Your task to perform on an android device: open device folders in google photos Image 0: 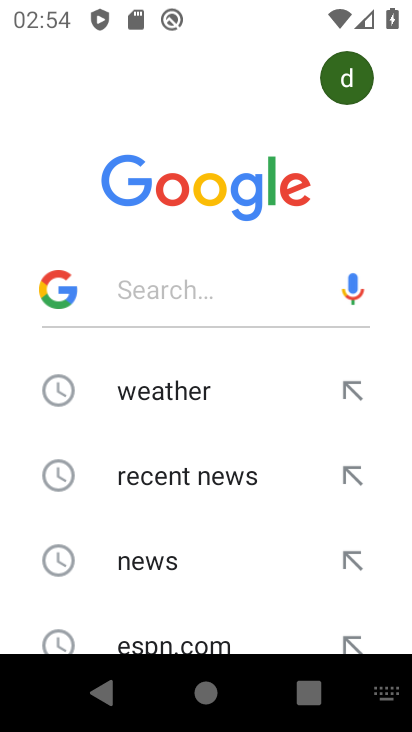
Step 0: press home button
Your task to perform on an android device: open device folders in google photos Image 1: 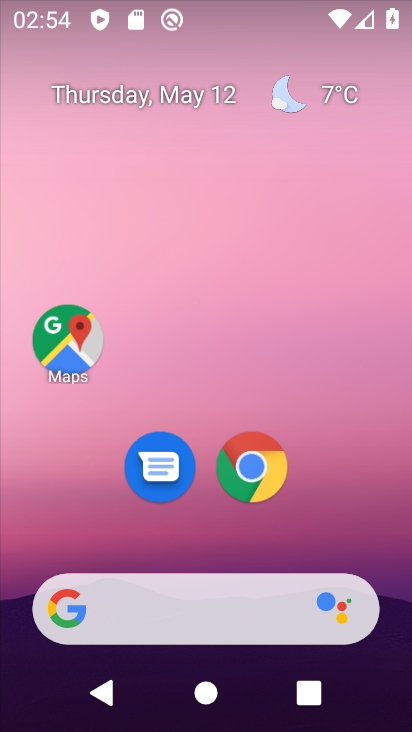
Step 1: drag from (335, 531) to (332, 63)
Your task to perform on an android device: open device folders in google photos Image 2: 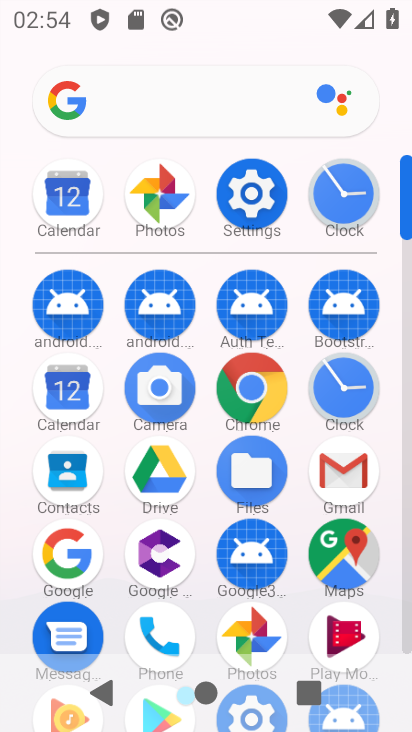
Step 2: click (240, 633)
Your task to perform on an android device: open device folders in google photos Image 3: 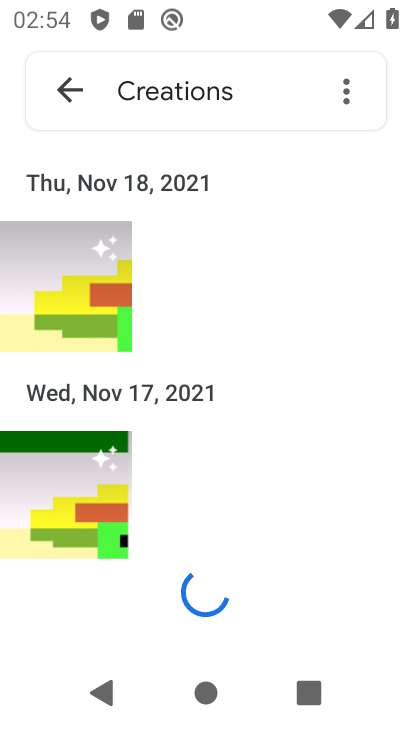
Step 3: click (70, 107)
Your task to perform on an android device: open device folders in google photos Image 4: 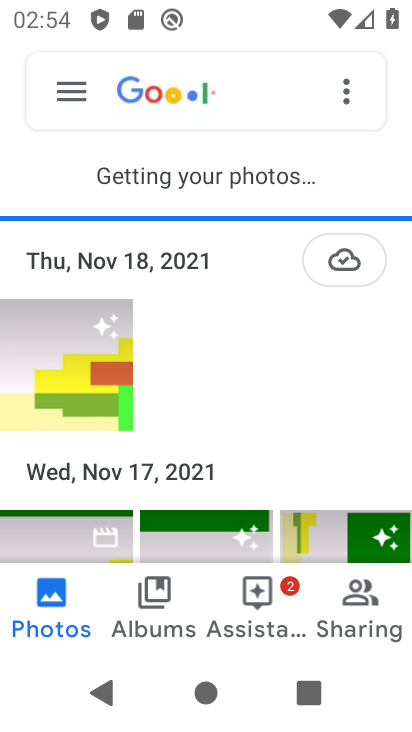
Step 4: click (75, 107)
Your task to perform on an android device: open device folders in google photos Image 5: 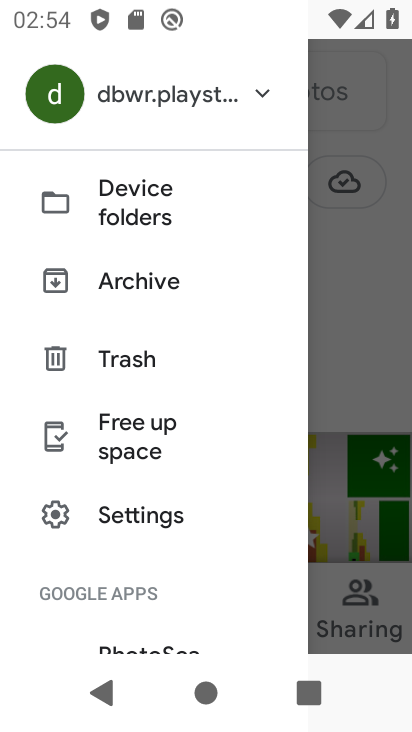
Step 5: click (107, 192)
Your task to perform on an android device: open device folders in google photos Image 6: 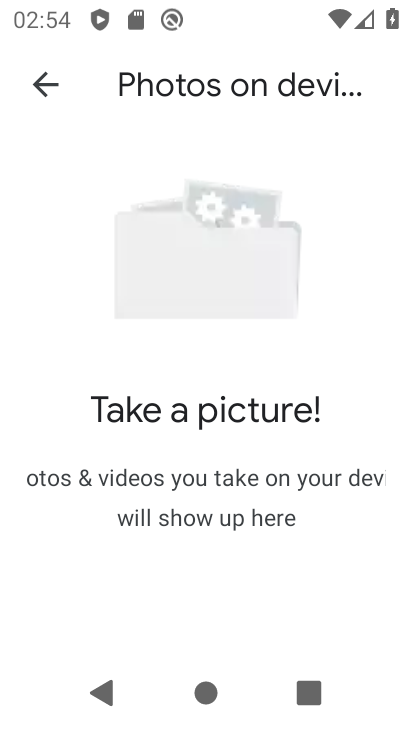
Step 6: task complete